Your task to perform on an android device: Open settings on Google Maps Image 0: 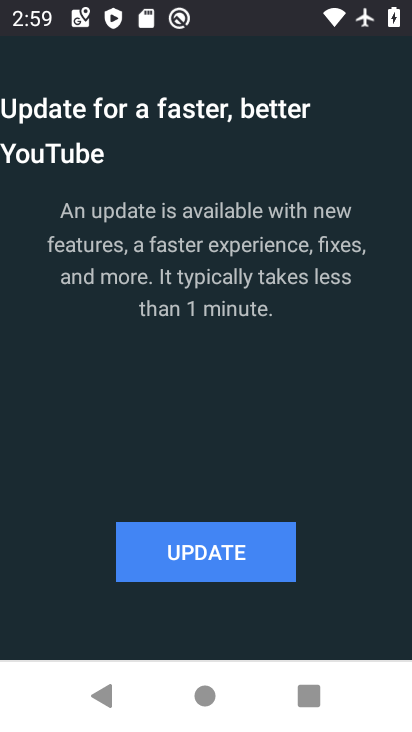
Step 0: press home button
Your task to perform on an android device: Open settings on Google Maps Image 1: 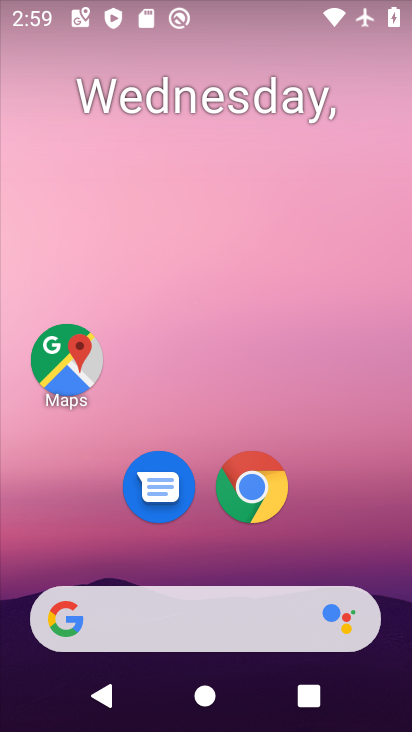
Step 1: drag from (333, 518) to (411, 35)
Your task to perform on an android device: Open settings on Google Maps Image 2: 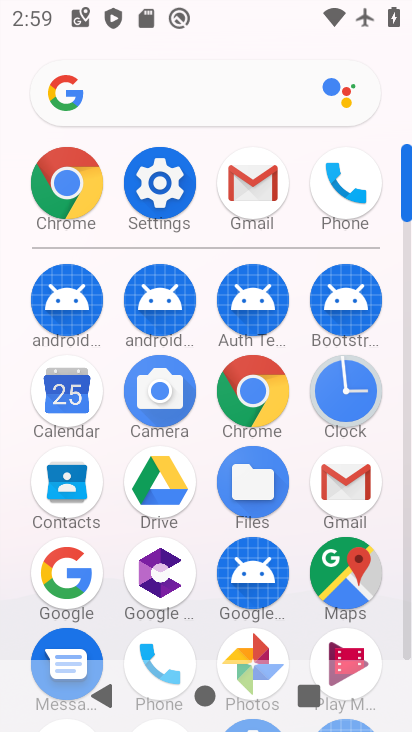
Step 2: click (355, 584)
Your task to perform on an android device: Open settings on Google Maps Image 3: 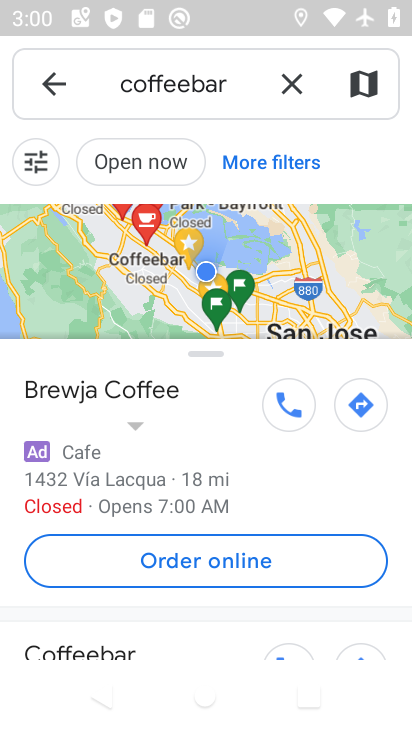
Step 3: task complete